Your task to perform on an android device: turn off picture-in-picture Image 0: 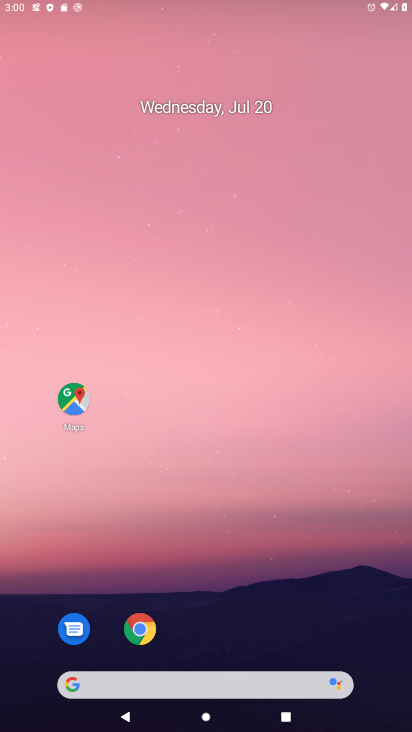
Step 0: press home button
Your task to perform on an android device: turn off picture-in-picture Image 1: 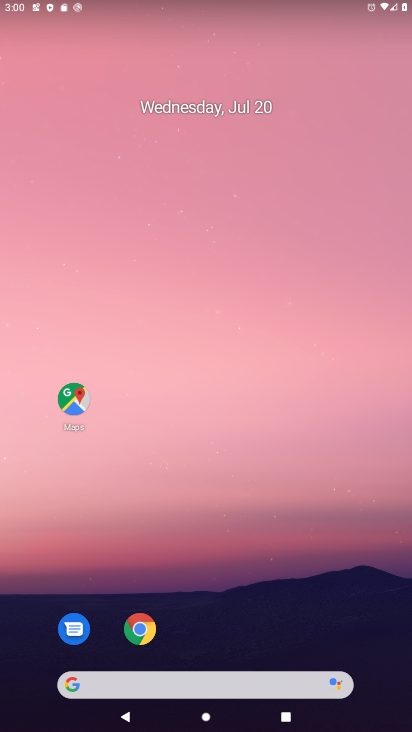
Step 1: click (136, 621)
Your task to perform on an android device: turn off picture-in-picture Image 2: 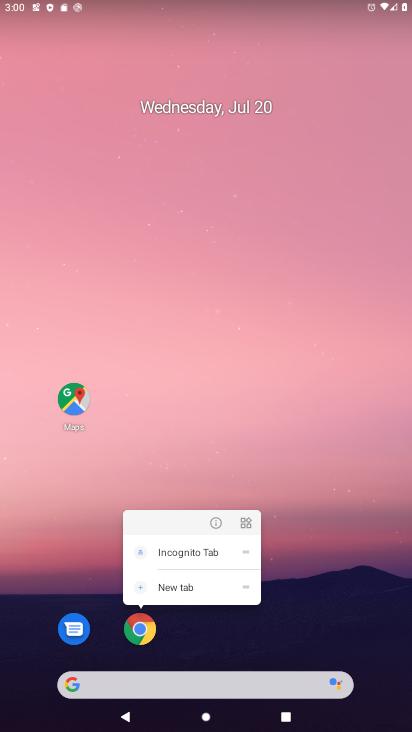
Step 2: click (211, 515)
Your task to perform on an android device: turn off picture-in-picture Image 3: 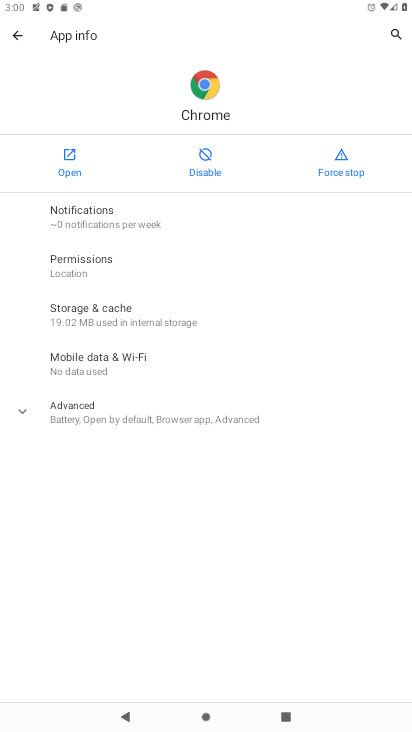
Step 3: click (26, 411)
Your task to perform on an android device: turn off picture-in-picture Image 4: 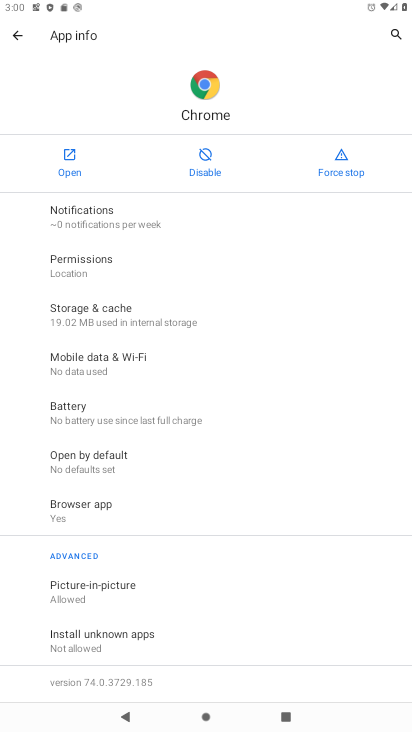
Step 4: click (119, 593)
Your task to perform on an android device: turn off picture-in-picture Image 5: 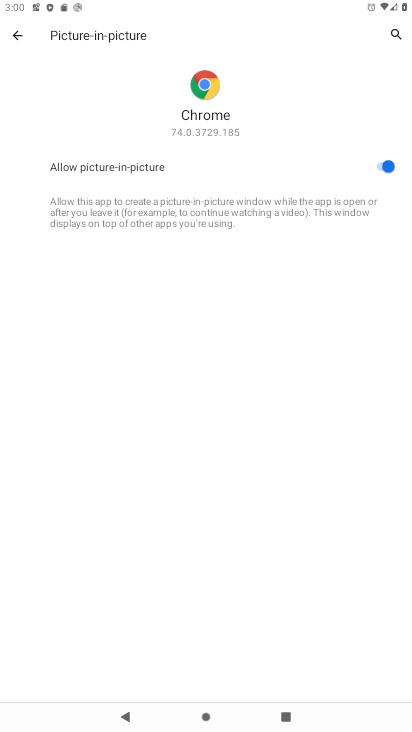
Step 5: click (379, 166)
Your task to perform on an android device: turn off picture-in-picture Image 6: 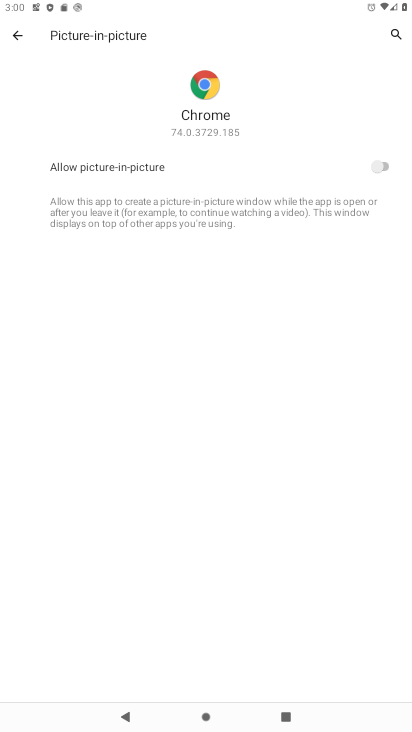
Step 6: task complete